Your task to perform on an android device: choose inbox layout in the gmail app Image 0: 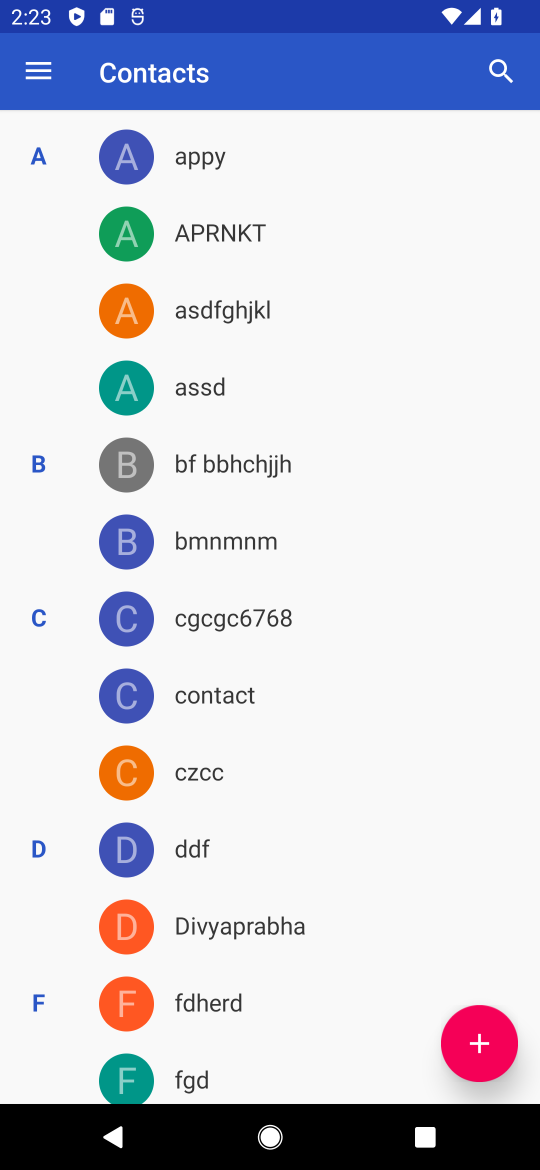
Step 0: press home button
Your task to perform on an android device: choose inbox layout in the gmail app Image 1: 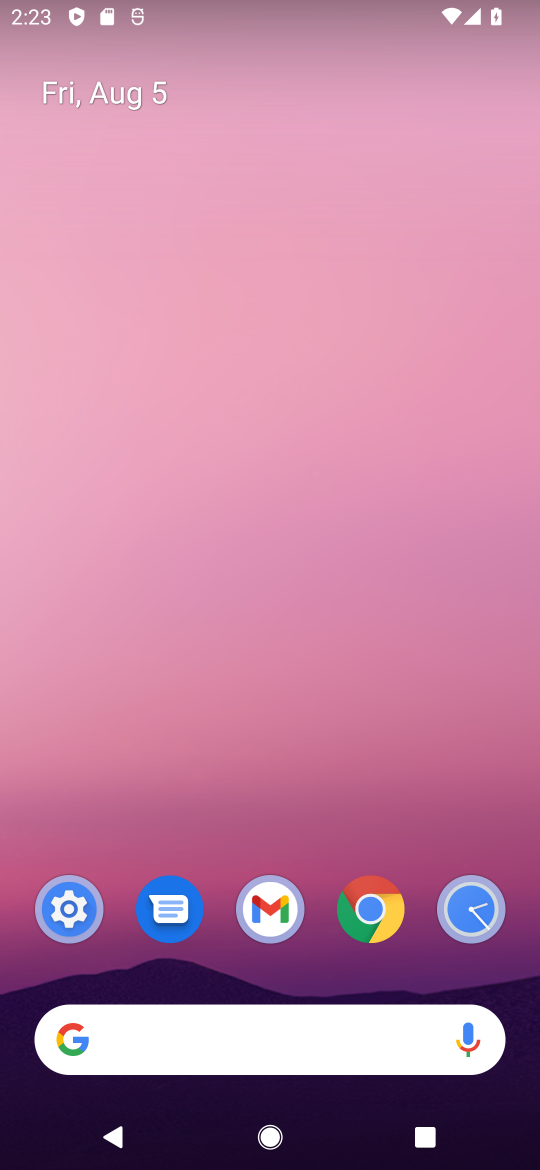
Step 1: drag from (122, 983) to (116, 90)
Your task to perform on an android device: choose inbox layout in the gmail app Image 2: 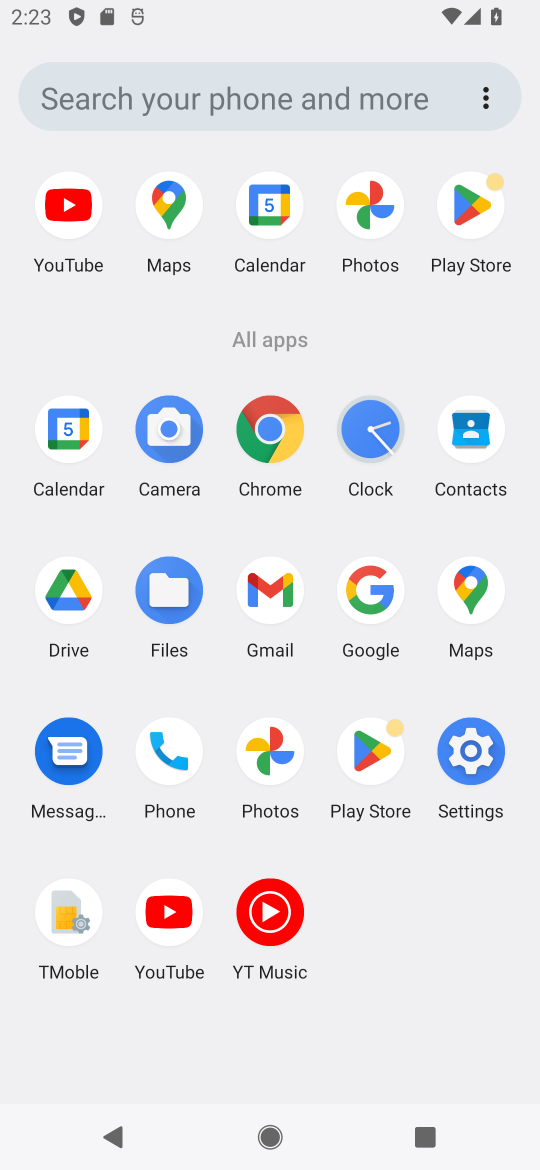
Step 2: click (251, 608)
Your task to perform on an android device: choose inbox layout in the gmail app Image 3: 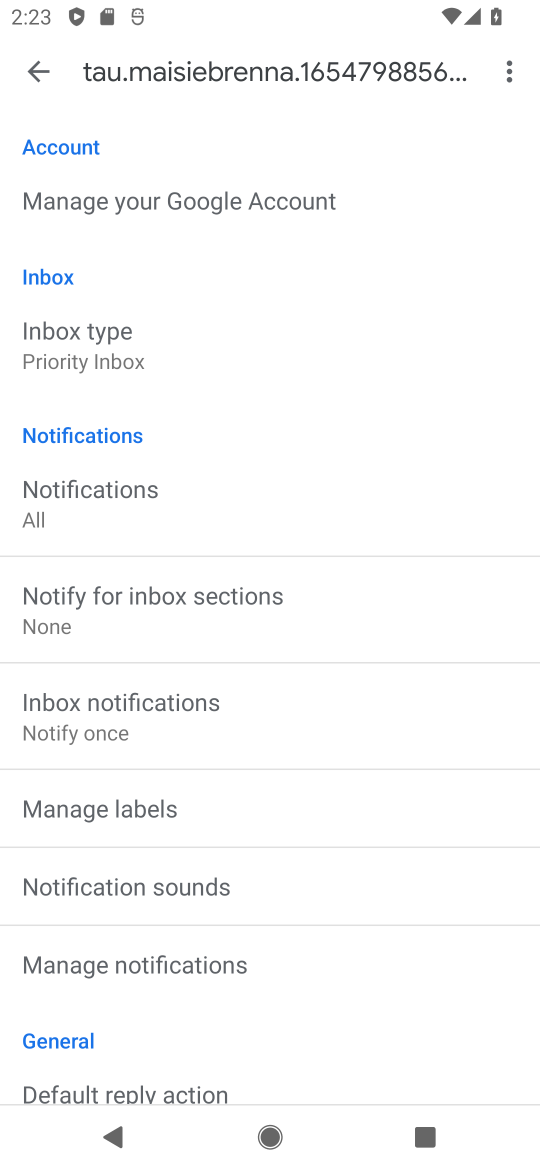
Step 3: task complete